Your task to perform on an android device: Clear the cart on amazon. Search for "logitech g pro" on amazon, select the first entry, and add it to the cart. Image 0: 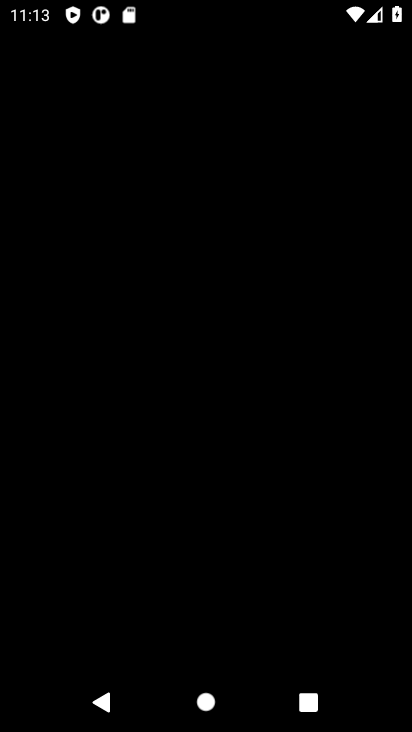
Step 0: press home button
Your task to perform on an android device: Clear the cart on amazon. Search for "logitech g pro" on amazon, select the first entry, and add it to the cart. Image 1: 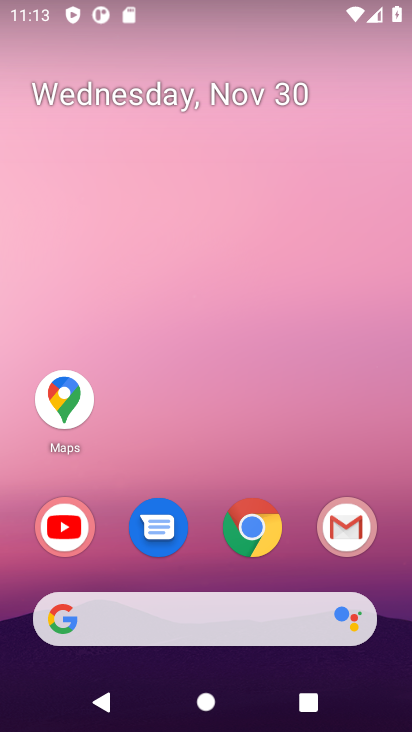
Step 1: click (260, 524)
Your task to perform on an android device: Clear the cart on amazon. Search for "logitech g pro" on amazon, select the first entry, and add it to the cart. Image 2: 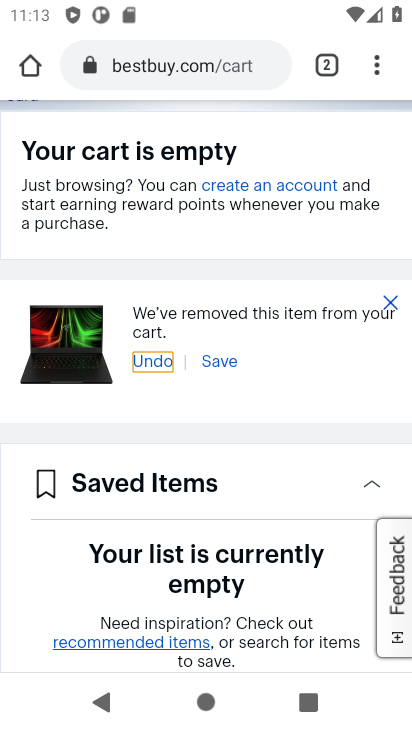
Step 2: click (179, 63)
Your task to perform on an android device: Clear the cart on amazon. Search for "logitech g pro" on amazon, select the first entry, and add it to the cart. Image 3: 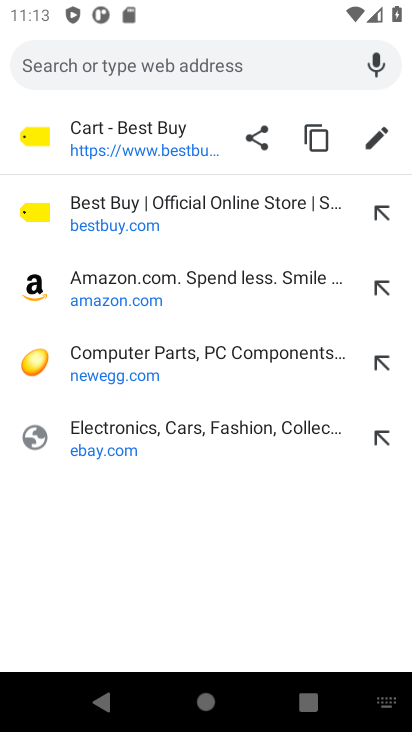
Step 3: click (100, 279)
Your task to perform on an android device: Clear the cart on amazon. Search for "logitech g pro" on amazon, select the first entry, and add it to the cart. Image 4: 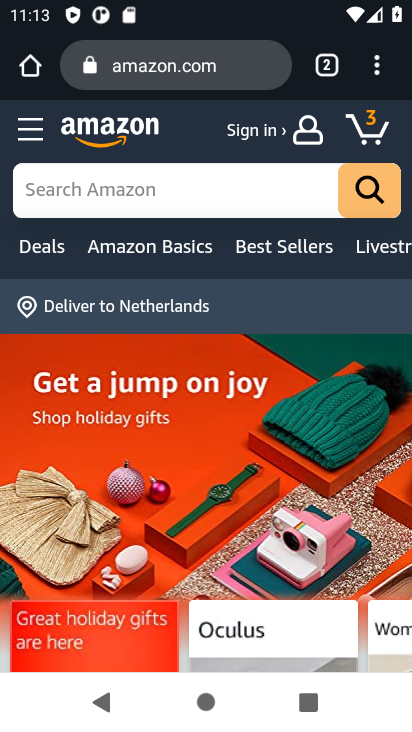
Step 4: click (373, 126)
Your task to perform on an android device: Clear the cart on amazon. Search for "logitech g pro" on amazon, select the first entry, and add it to the cart. Image 5: 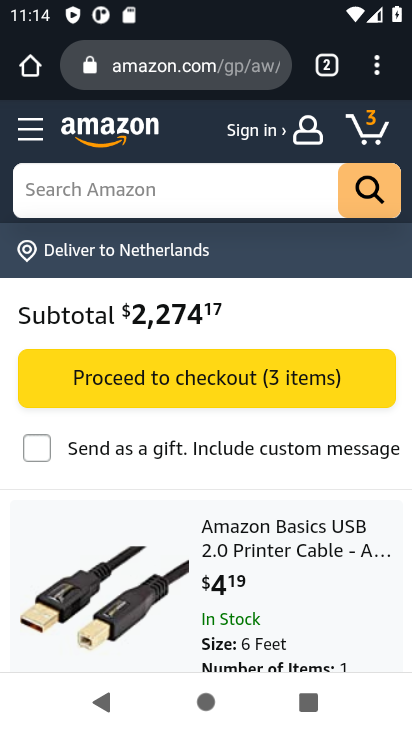
Step 5: drag from (139, 502) to (123, 274)
Your task to perform on an android device: Clear the cart on amazon. Search for "logitech g pro" on amazon, select the first entry, and add it to the cart. Image 6: 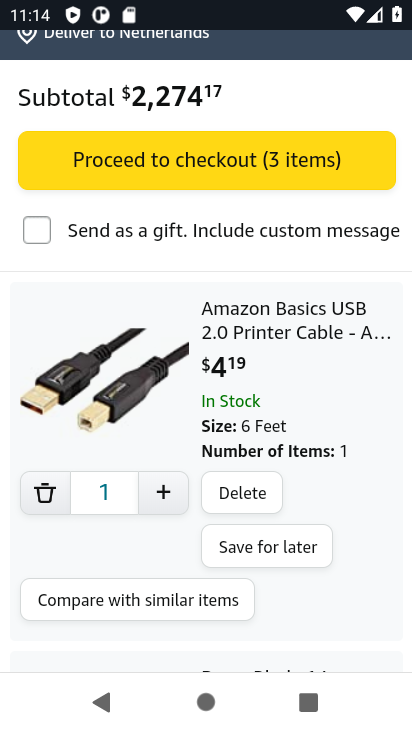
Step 6: click (248, 491)
Your task to perform on an android device: Clear the cart on amazon. Search for "logitech g pro" on amazon, select the first entry, and add it to the cart. Image 7: 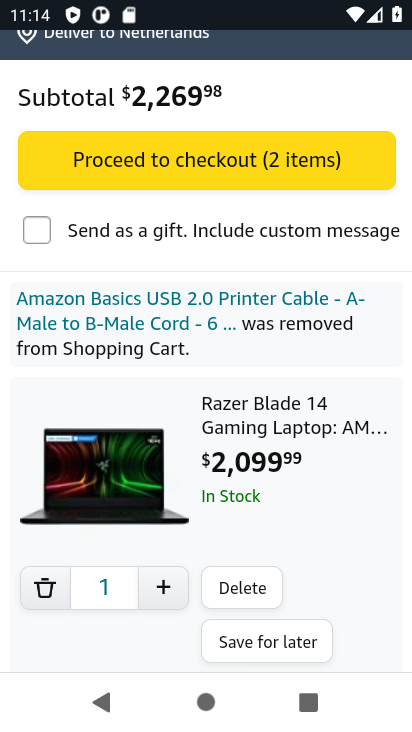
Step 7: click (227, 590)
Your task to perform on an android device: Clear the cart on amazon. Search for "logitech g pro" on amazon, select the first entry, and add it to the cart. Image 8: 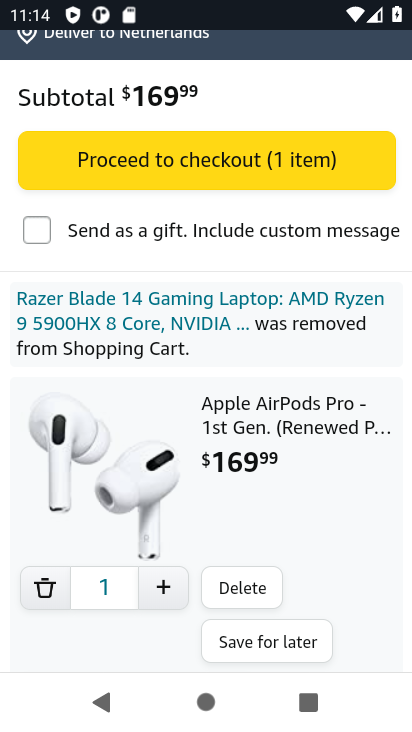
Step 8: click (227, 590)
Your task to perform on an android device: Clear the cart on amazon. Search for "logitech g pro" on amazon, select the first entry, and add it to the cart. Image 9: 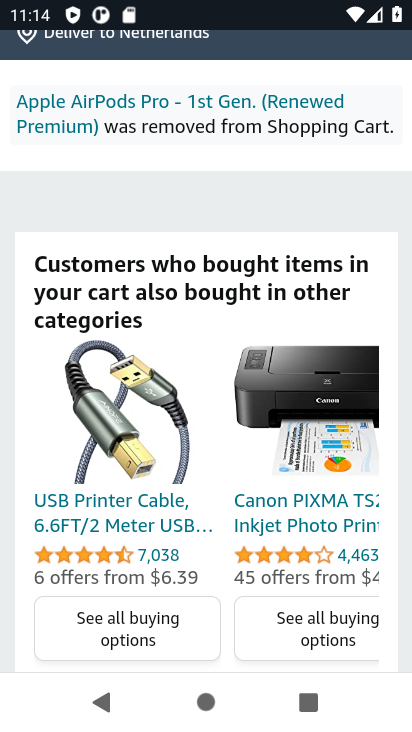
Step 9: drag from (149, 135) to (111, 449)
Your task to perform on an android device: Clear the cart on amazon. Search for "logitech g pro" on amazon, select the first entry, and add it to the cart. Image 10: 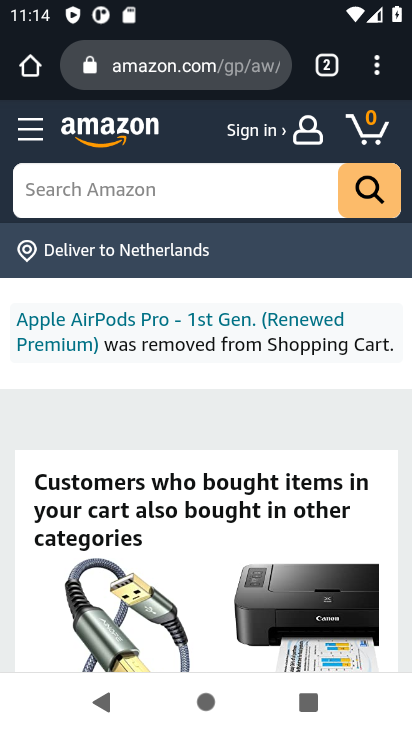
Step 10: click (102, 186)
Your task to perform on an android device: Clear the cart on amazon. Search for "logitech g pro" on amazon, select the first entry, and add it to the cart. Image 11: 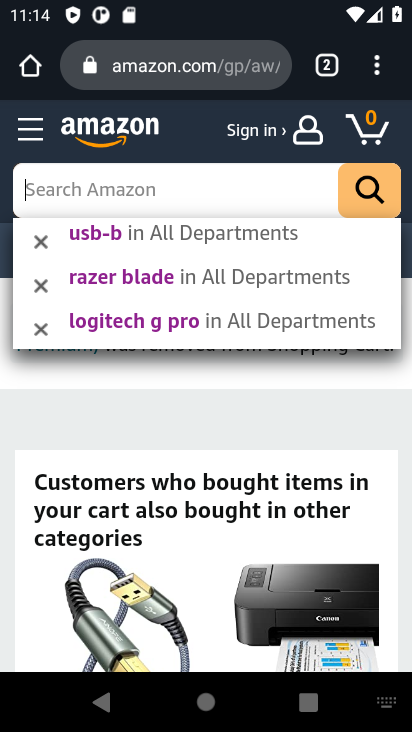
Step 11: type "logitech g pro"
Your task to perform on an android device: Clear the cart on amazon. Search for "logitech g pro" on amazon, select the first entry, and add it to the cart. Image 12: 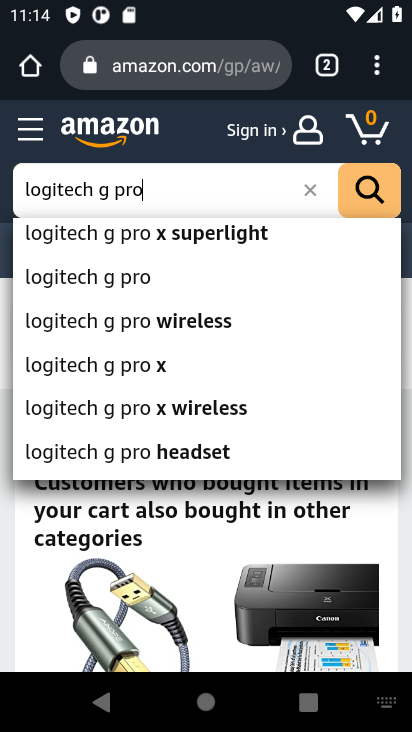
Step 12: click (86, 286)
Your task to perform on an android device: Clear the cart on amazon. Search for "logitech g pro" on amazon, select the first entry, and add it to the cart. Image 13: 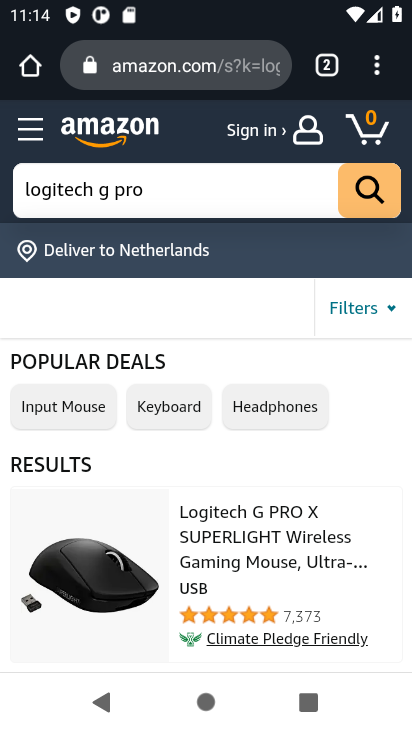
Step 13: drag from (354, 541) to (347, 369)
Your task to perform on an android device: Clear the cart on amazon. Search for "logitech g pro" on amazon, select the first entry, and add it to the cart. Image 14: 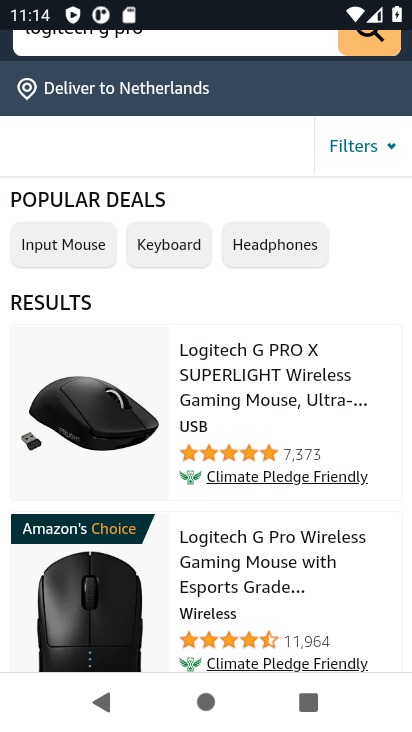
Step 14: click (275, 388)
Your task to perform on an android device: Clear the cart on amazon. Search for "logitech g pro" on amazon, select the first entry, and add it to the cart. Image 15: 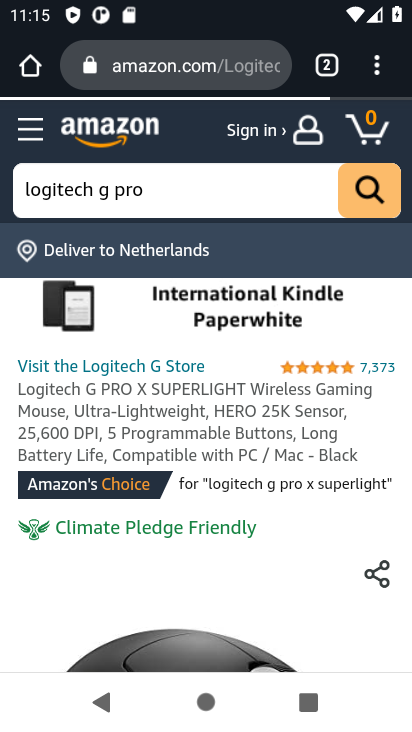
Step 15: task complete